Your task to perform on an android device: turn on improve location accuracy Image 0: 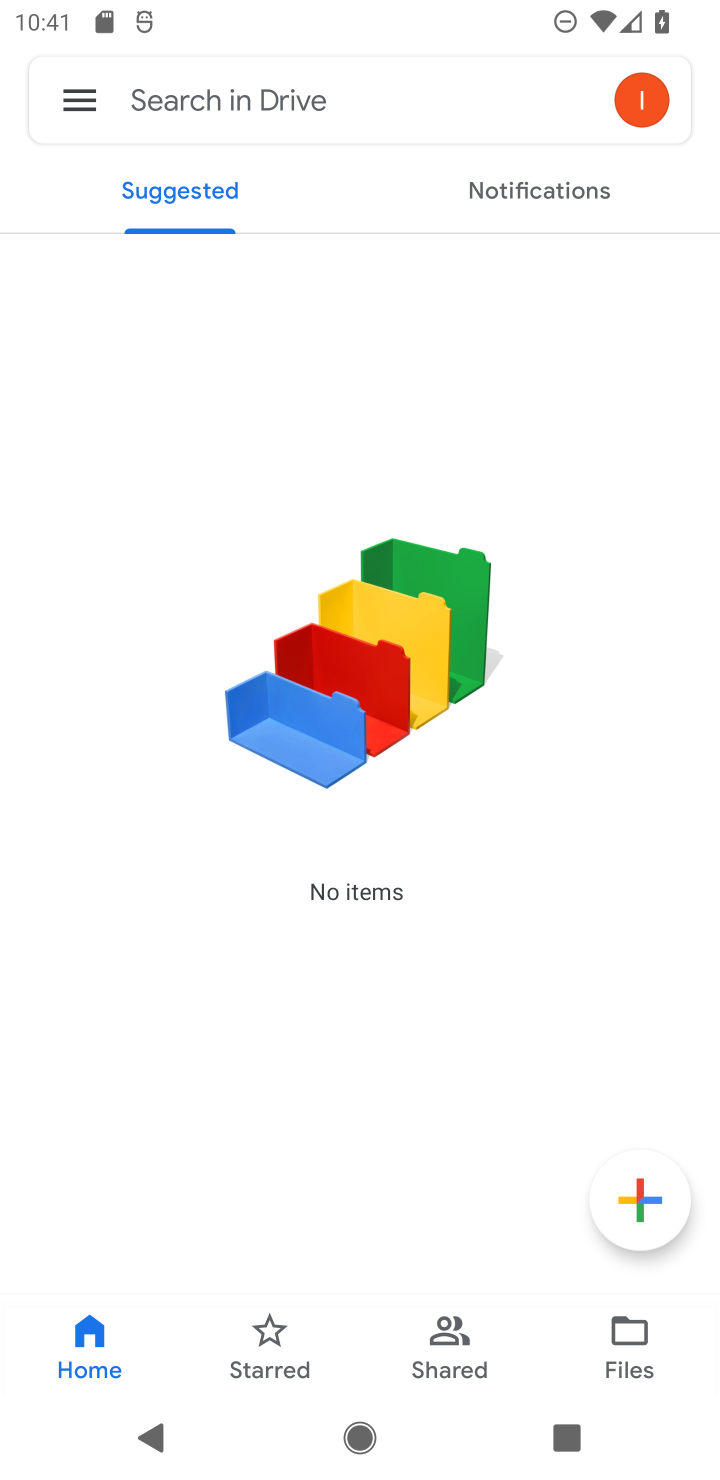
Step 0: press home button
Your task to perform on an android device: turn on improve location accuracy Image 1: 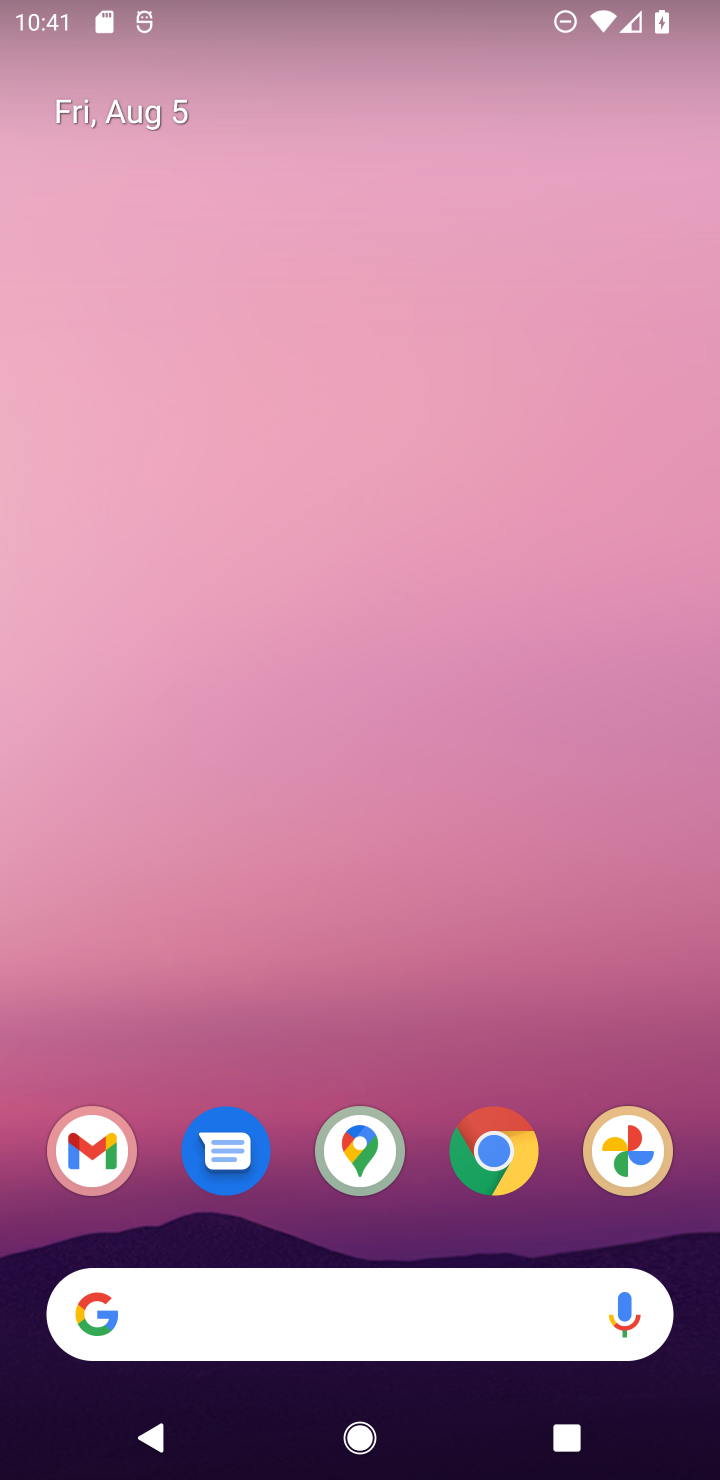
Step 1: click (429, 441)
Your task to perform on an android device: turn on improve location accuracy Image 2: 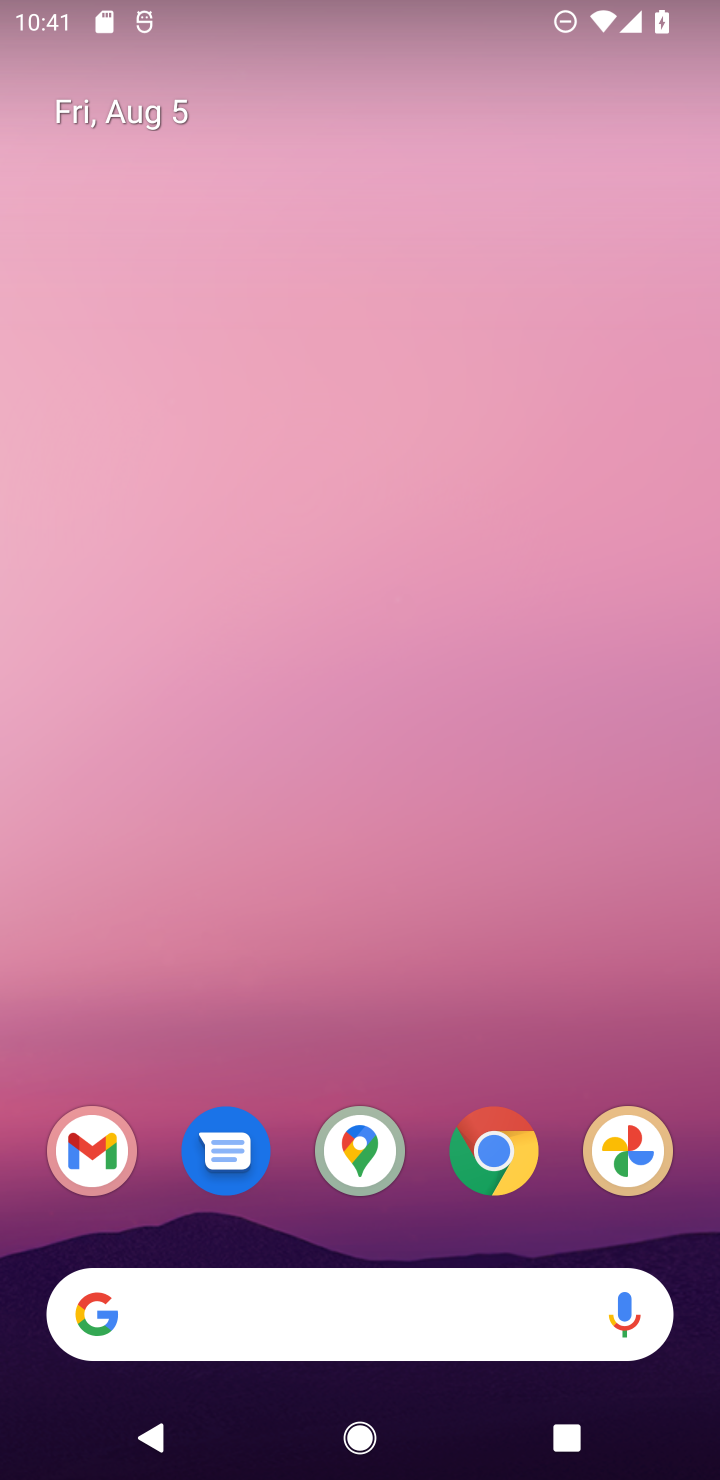
Step 2: drag from (310, 472) to (324, 25)
Your task to perform on an android device: turn on improve location accuracy Image 3: 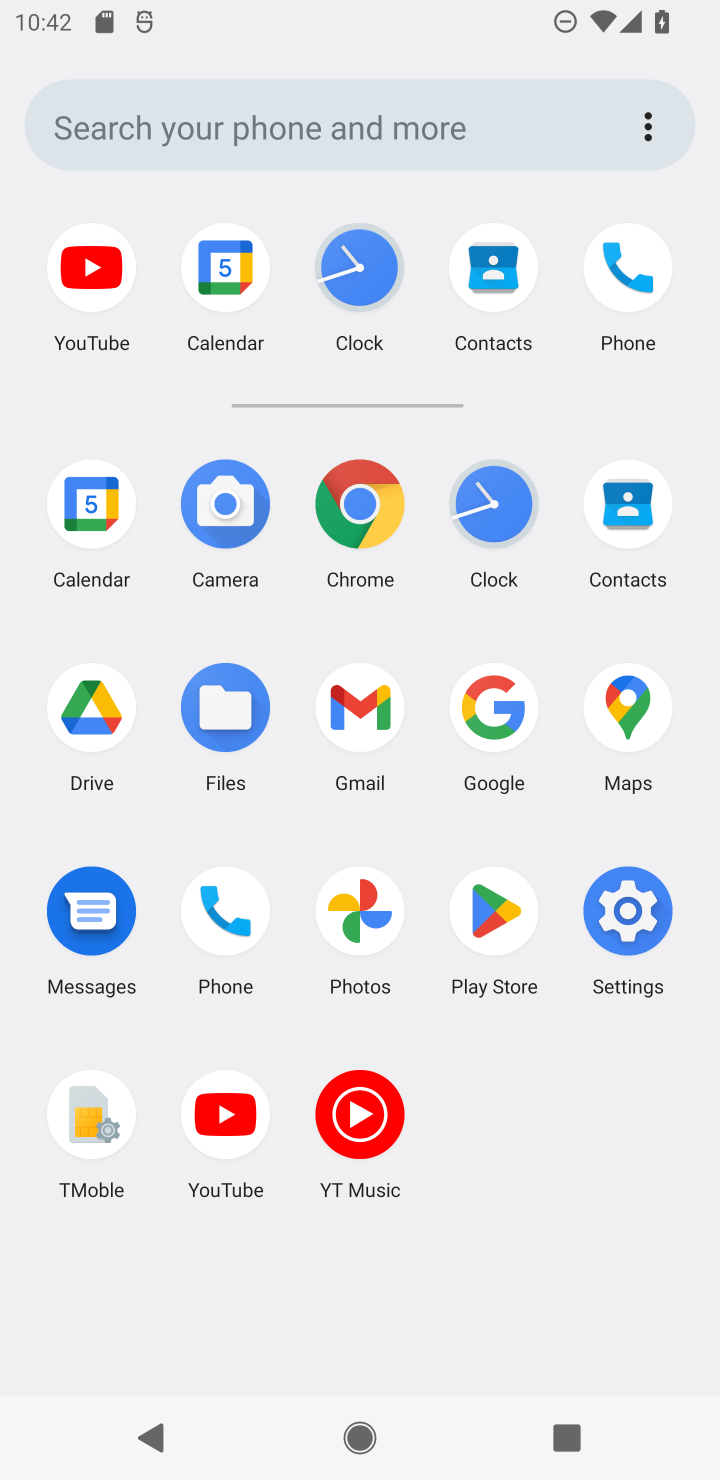
Step 3: click (637, 917)
Your task to perform on an android device: turn on improve location accuracy Image 4: 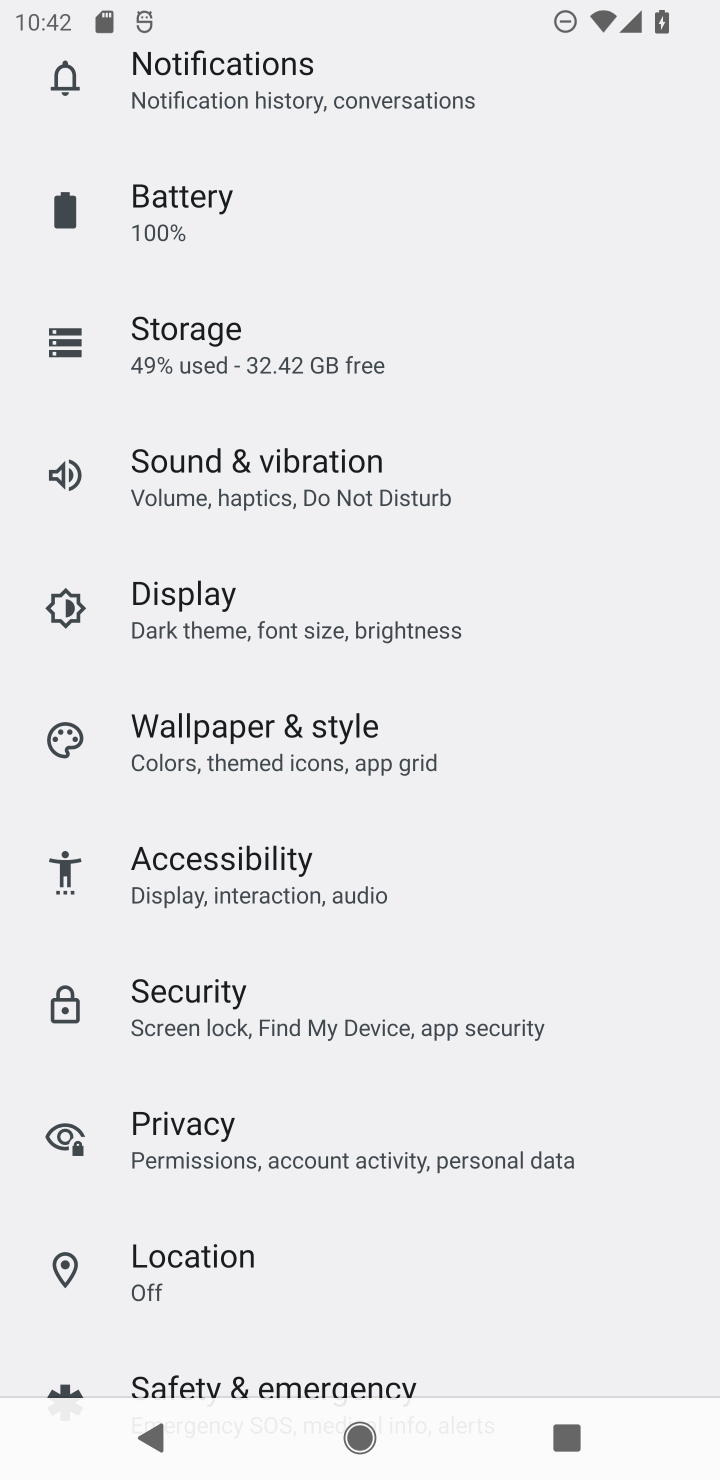
Step 4: click (189, 1302)
Your task to perform on an android device: turn on improve location accuracy Image 5: 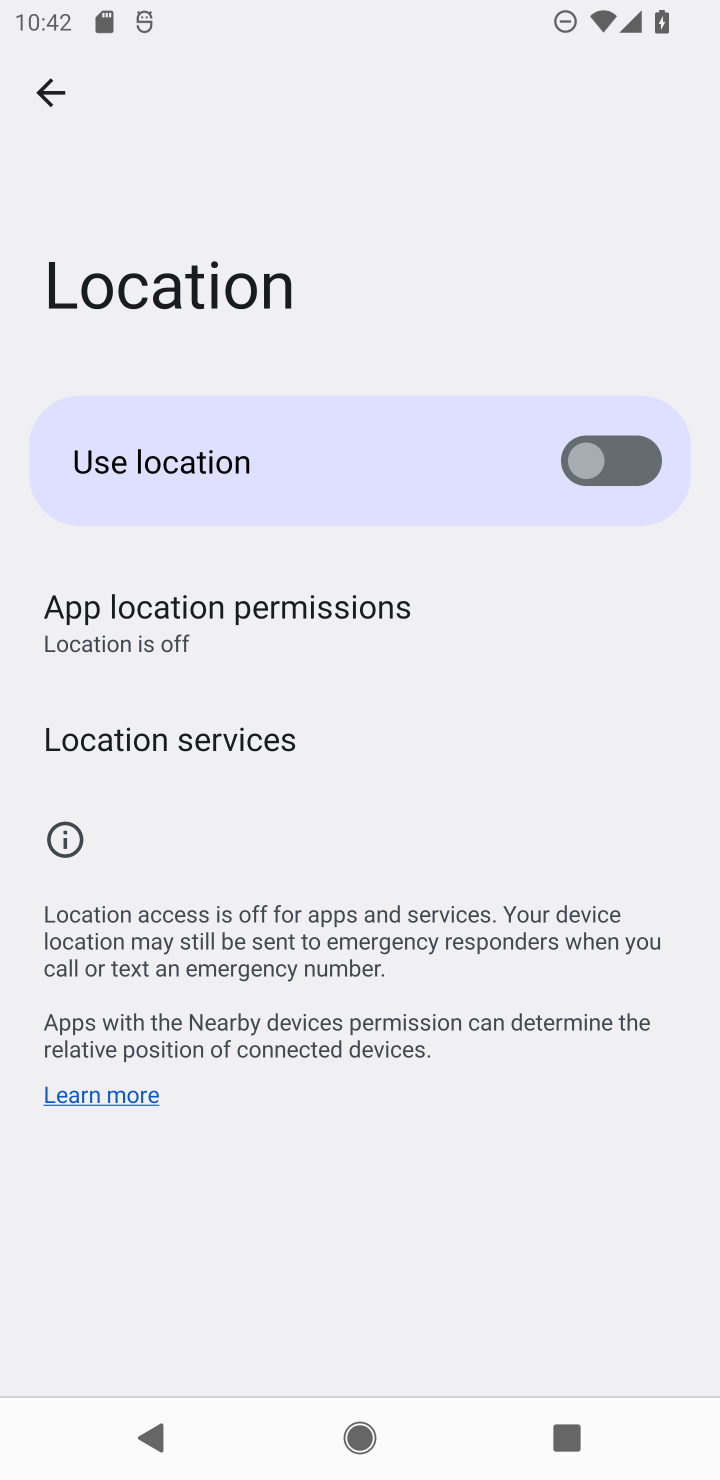
Step 5: click (283, 733)
Your task to perform on an android device: turn on improve location accuracy Image 6: 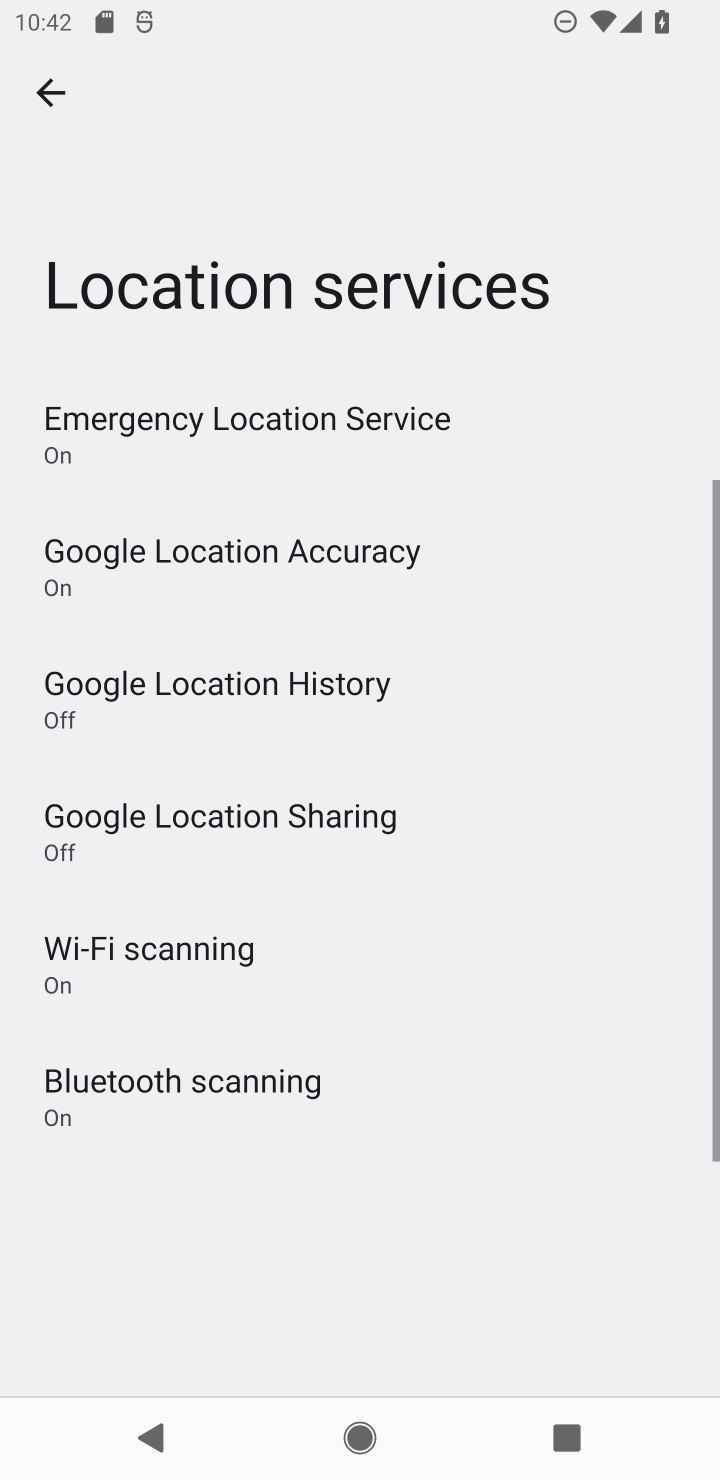
Step 6: click (409, 548)
Your task to perform on an android device: turn on improve location accuracy Image 7: 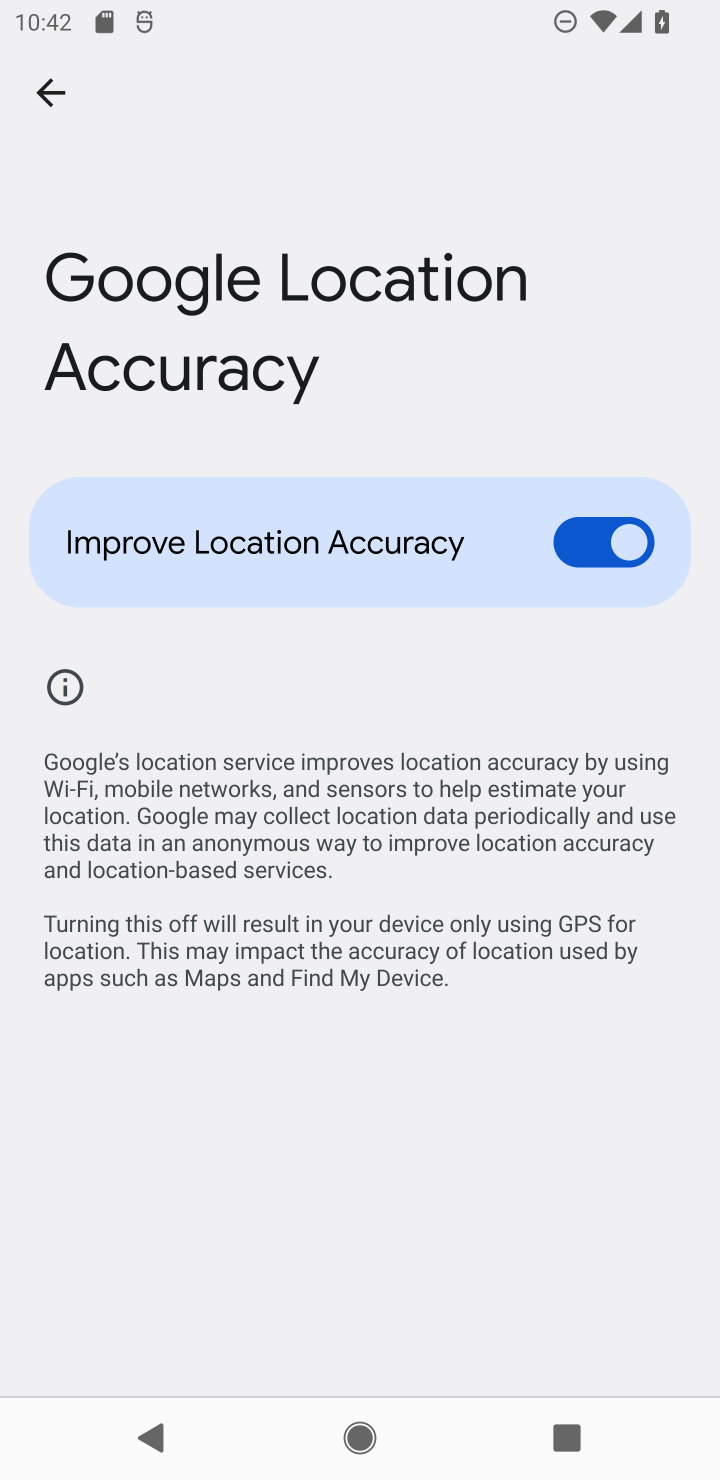
Step 7: task complete